Your task to perform on an android device: stop showing notifications on the lock screen Image 0: 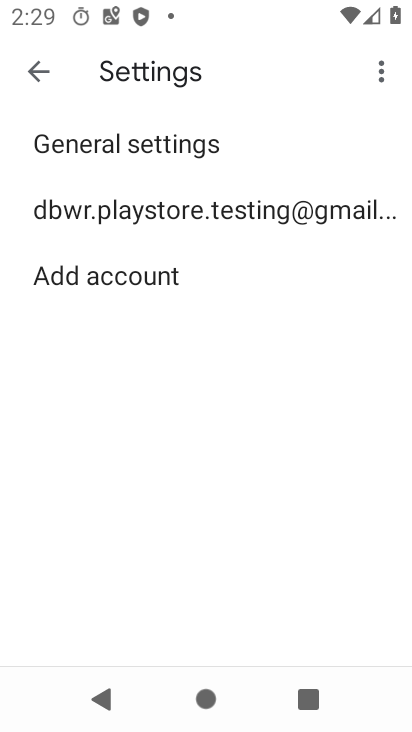
Step 0: press home button
Your task to perform on an android device: stop showing notifications on the lock screen Image 1: 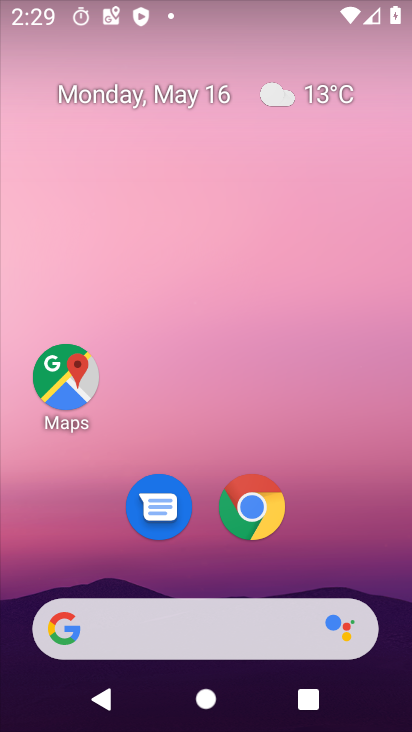
Step 1: drag from (359, 546) to (373, 92)
Your task to perform on an android device: stop showing notifications on the lock screen Image 2: 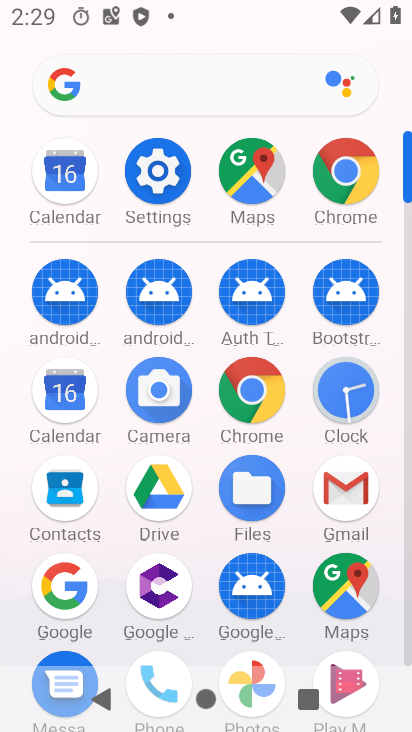
Step 2: click (166, 181)
Your task to perform on an android device: stop showing notifications on the lock screen Image 3: 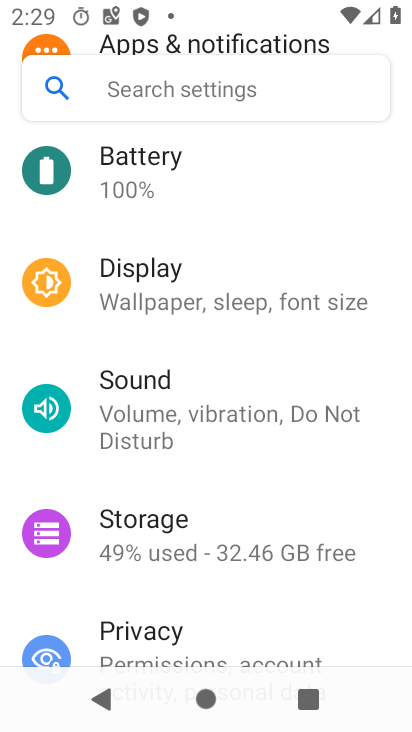
Step 3: drag from (367, 613) to (378, 464)
Your task to perform on an android device: stop showing notifications on the lock screen Image 4: 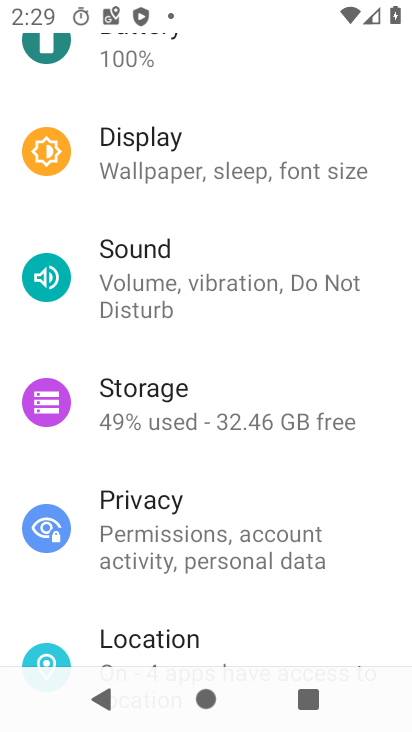
Step 4: drag from (352, 622) to (357, 458)
Your task to perform on an android device: stop showing notifications on the lock screen Image 5: 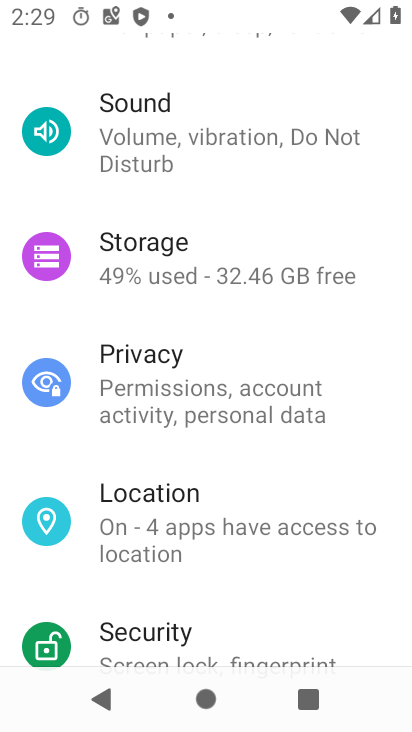
Step 5: drag from (327, 613) to (328, 477)
Your task to perform on an android device: stop showing notifications on the lock screen Image 6: 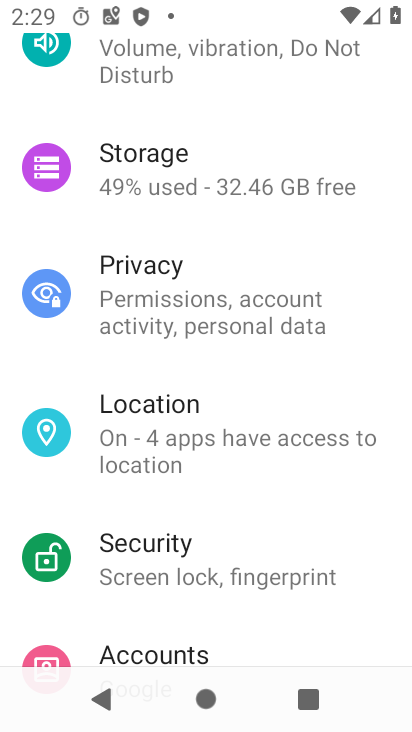
Step 6: drag from (324, 627) to (335, 482)
Your task to perform on an android device: stop showing notifications on the lock screen Image 7: 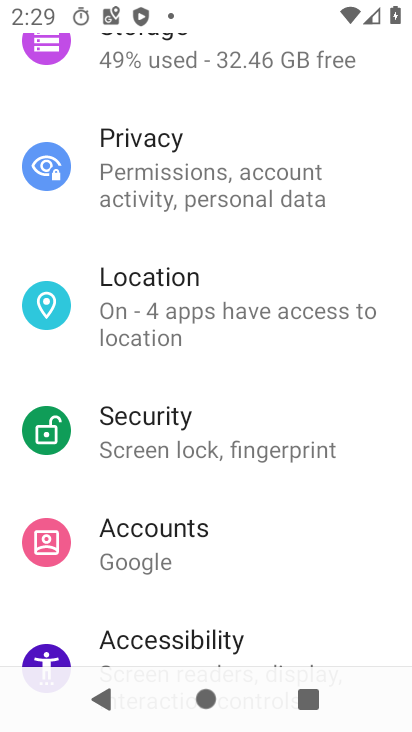
Step 7: drag from (326, 616) to (337, 444)
Your task to perform on an android device: stop showing notifications on the lock screen Image 8: 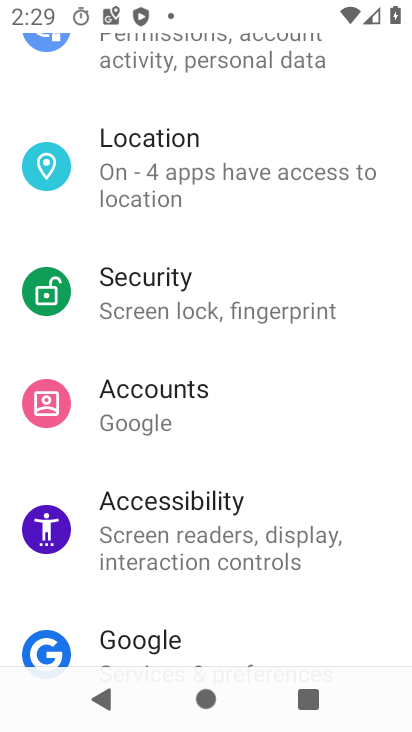
Step 8: drag from (304, 627) to (314, 357)
Your task to perform on an android device: stop showing notifications on the lock screen Image 9: 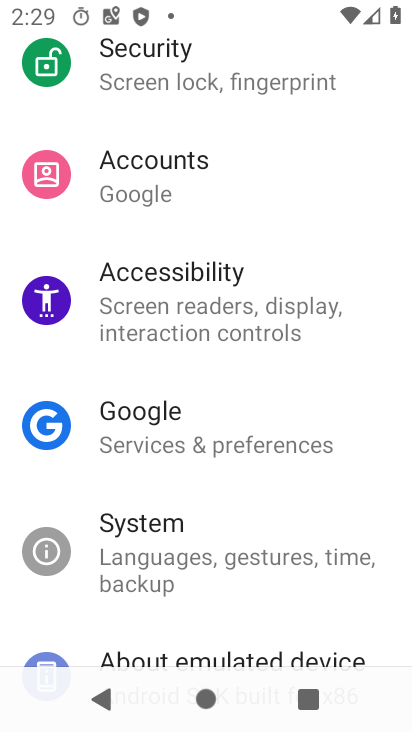
Step 9: drag from (288, 615) to (291, 474)
Your task to perform on an android device: stop showing notifications on the lock screen Image 10: 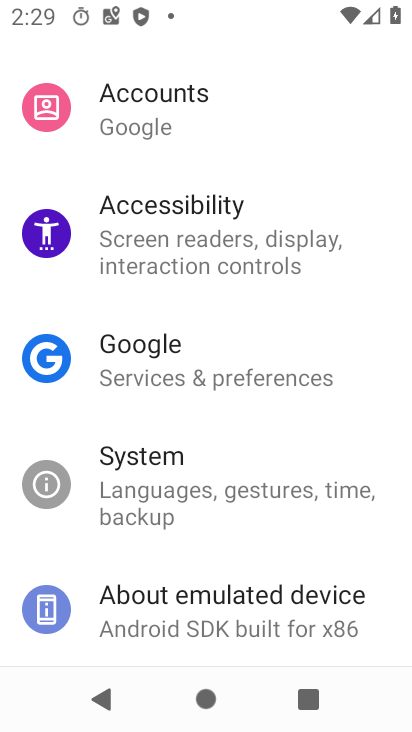
Step 10: drag from (373, 288) to (373, 455)
Your task to perform on an android device: stop showing notifications on the lock screen Image 11: 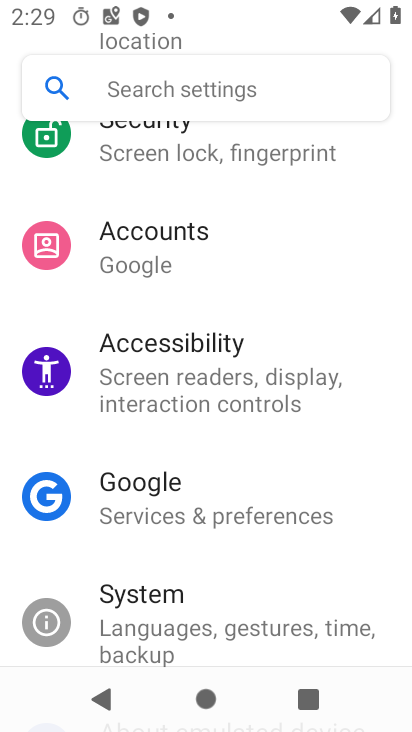
Step 11: drag from (366, 251) to (358, 456)
Your task to perform on an android device: stop showing notifications on the lock screen Image 12: 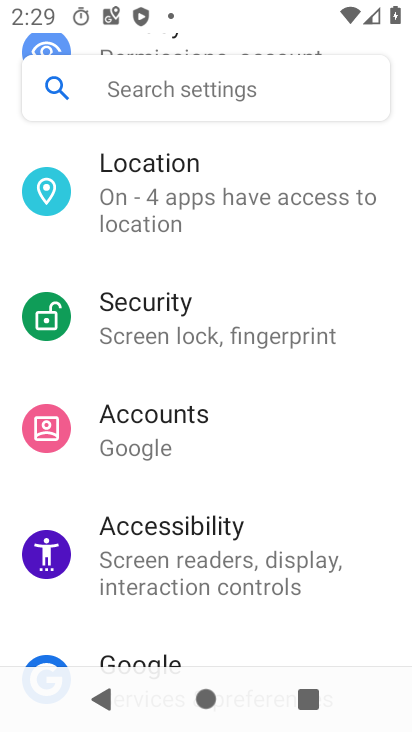
Step 12: drag from (358, 234) to (353, 429)
Your task to perform on an android device: stop showing notifications on the lock screen Image 13: 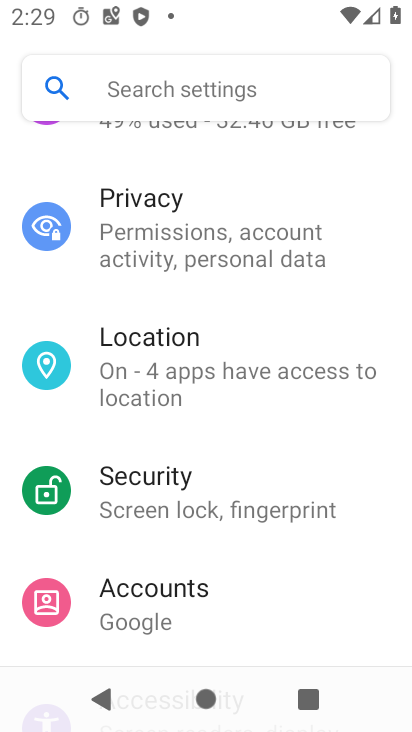
Step 13: drag from (362, 223) to (362, 412)
Your task to perform on an android device: stop showing notifications on the lock screen Image 14: 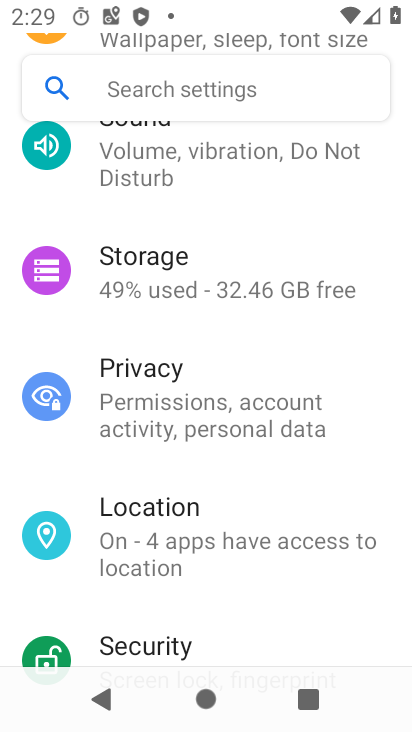
Step 14: drag from (374, 232) to (375, 383)
Your task to perform on an android device: stop showing notifications on the lock screen Image 15: 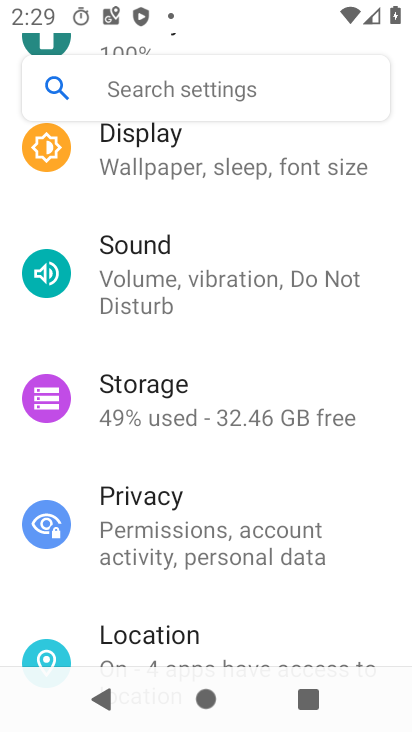
Step 15: drag from (381, 242) to (381, 404)
Your task to perform on an android device: stop showing notifications on the lock screen Image 16: 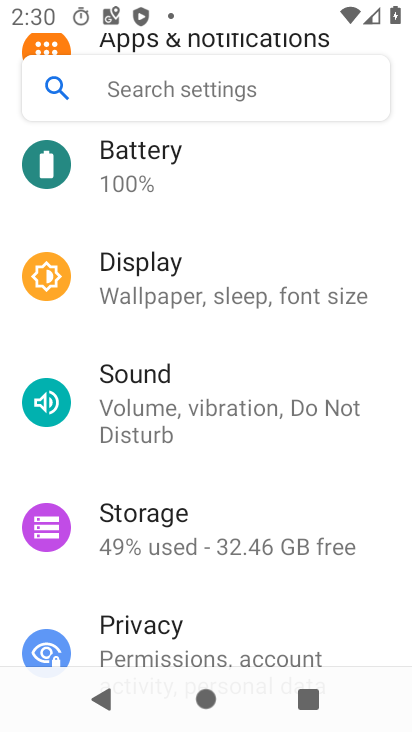
Step 16: drag from (377, 205) to (371, 410)
Your task to perform on an android device: stop showing notifications on the lock screen Image 17: 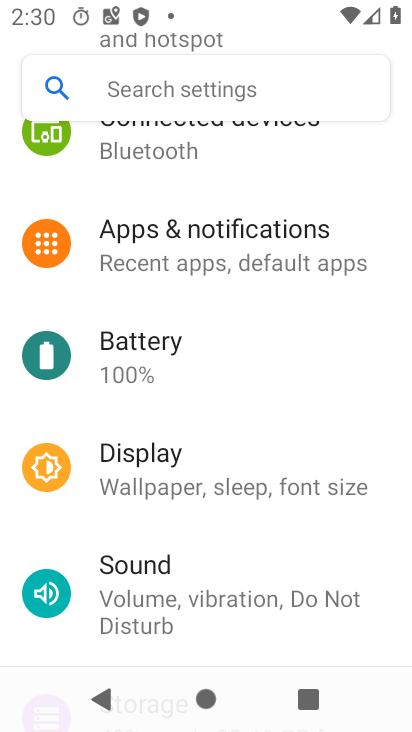
Step 17: click (278, 247)
Your task to perform on an android device: stop showing notifications on the lock screen Image 18: 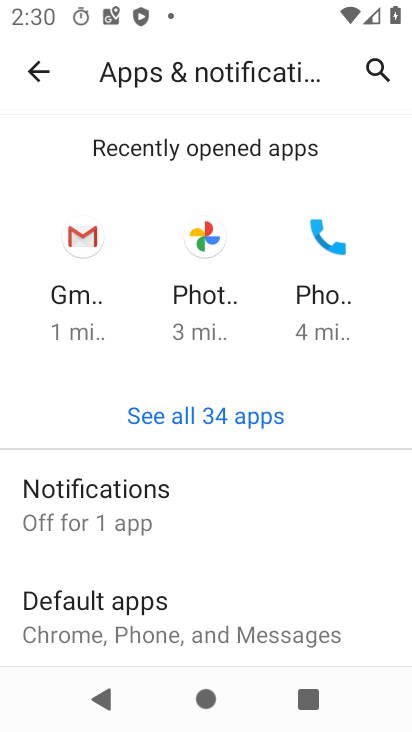
Step 18: click (144, 515)
Your task to perform on an android device: stop showing notifications on the lock screen Image 19: 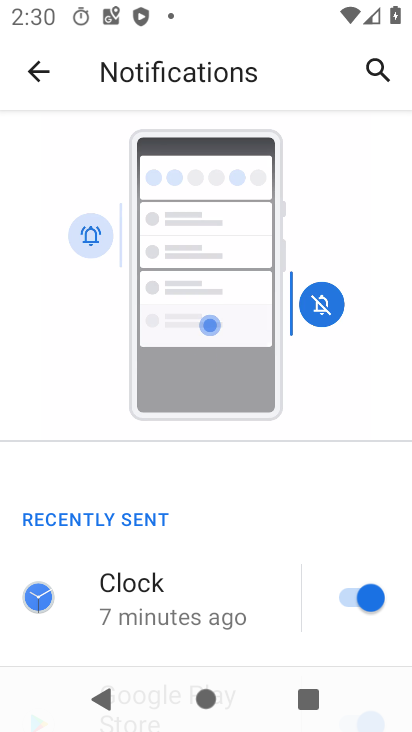
Step 19: drag from (259, 557) to (289, 388)
Your task to perform on an android device: stop showing notifications on the lock screen Image 20: 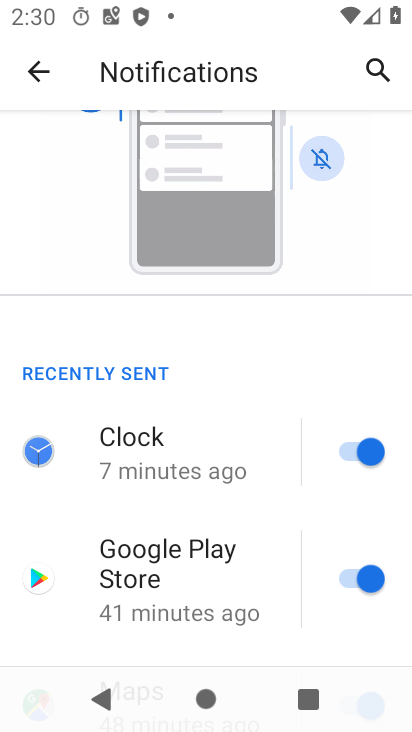
Step 20: drag from (256, 616) to (271, 425)
Your task to perform on an android device: stop showing notifications on the lock screen Image 21: 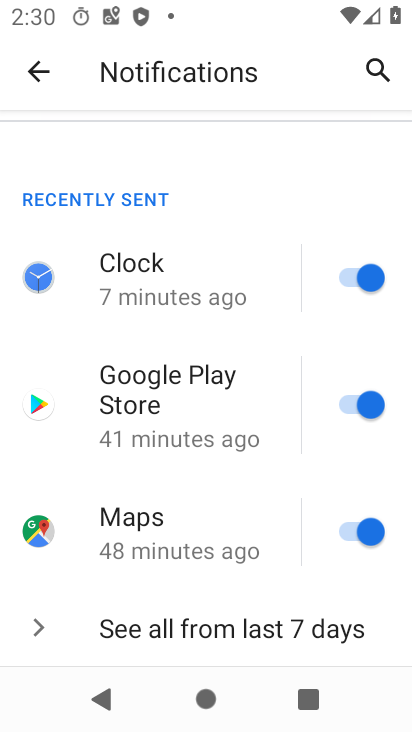
Step 21: drag from (249, 586) to (270, 424)
Your task to perform on an android device: stop showing notifications on the lock screen Image 22: 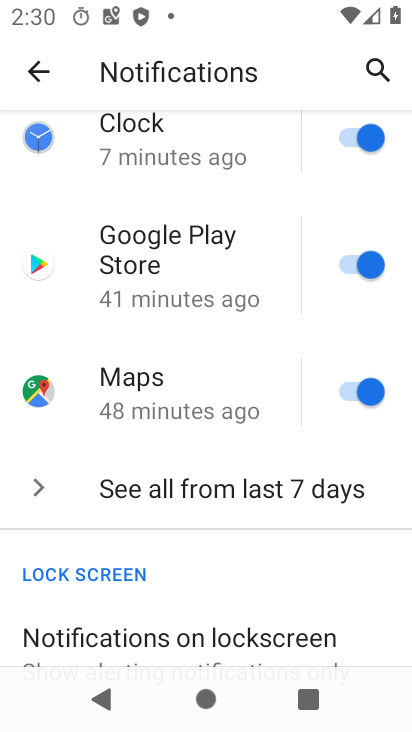
Step 22: drag from (265, 586) to (270, 421)
Your task to perform on an android device: stop showing notifications on the lock screen Image 23: 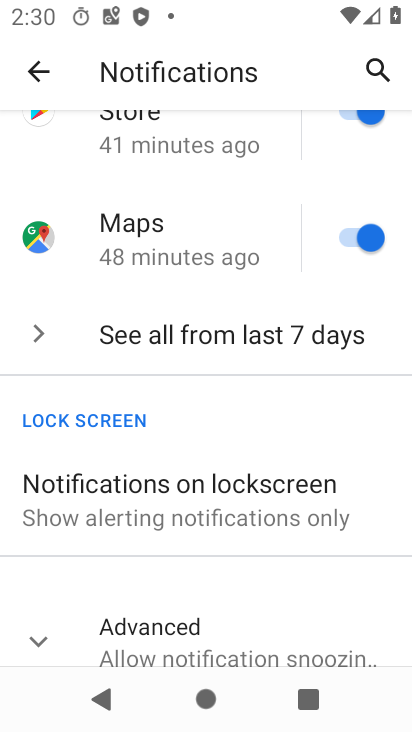
Step 23: click (262, 497)
Your task to perform on an android device: stop showing notifications on the lock screen Image 24: 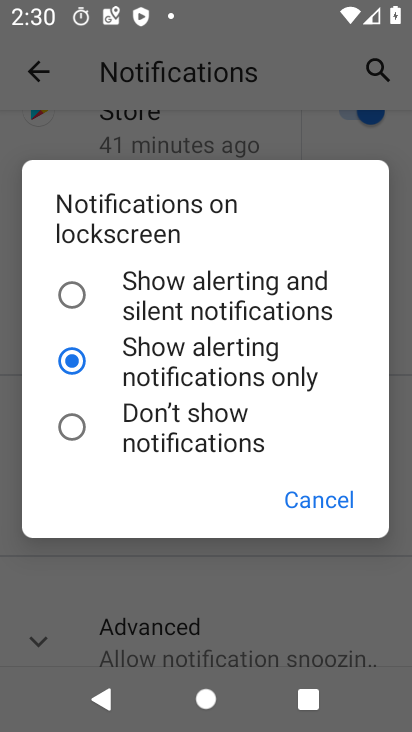
Step 24: click (70, 432)
Your task to perform on an android device: stop showing notifications on the lock screen Image 25: 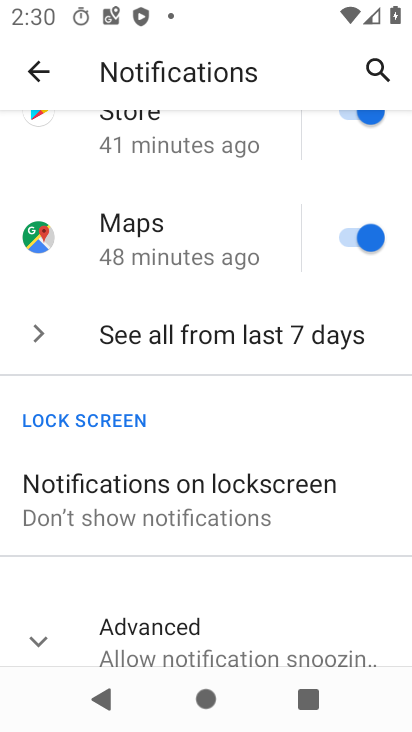
Step 25: task complete